Your task to perform on an android device: Search for Mexican restaurants on Maps Image 0: 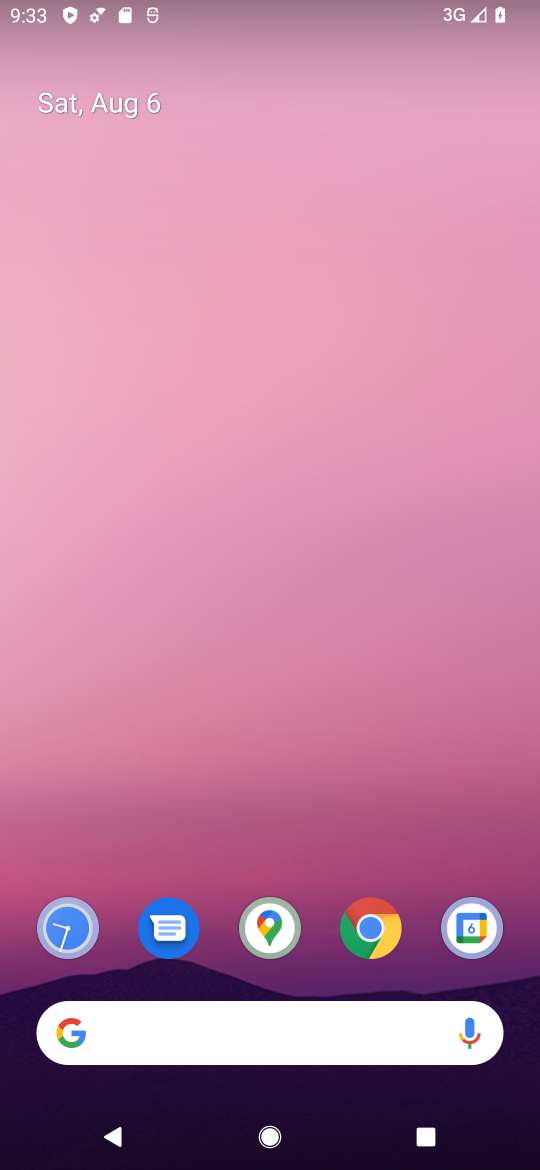
Step 0: click (276, 923)
Your task to perform on an android device: Search for Mexican restaurants on Maps Image 1: 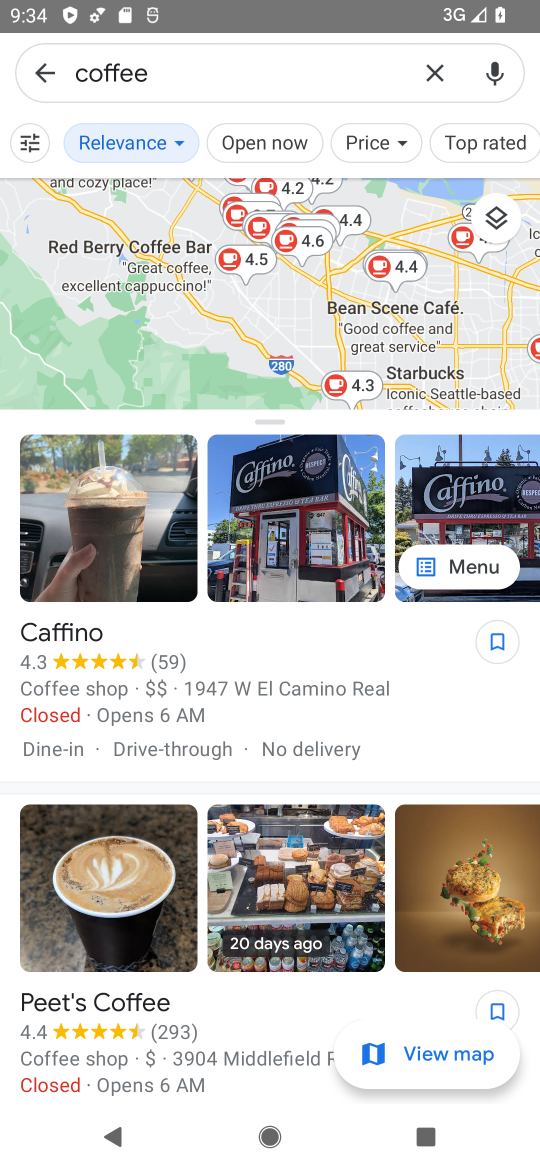
Step 1: click (432, 65)
Your task to perform on an android device: Search for Mexican restaurants on Maps Image 2: 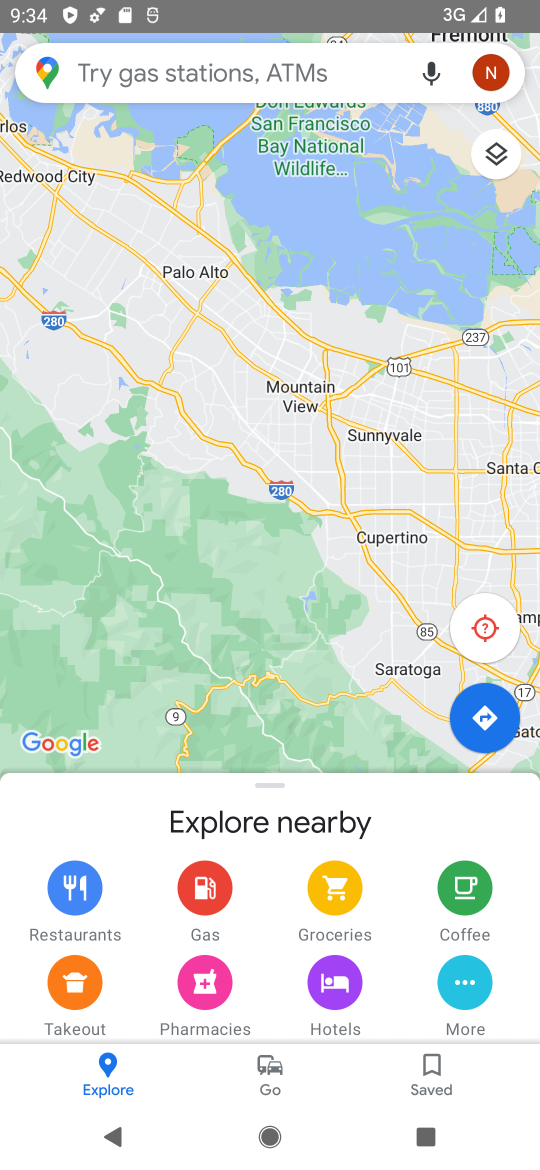
Step 2: click (223, 65)
Your task to perform on an android device: Search for Mexican restaurants on Maps Image 3: 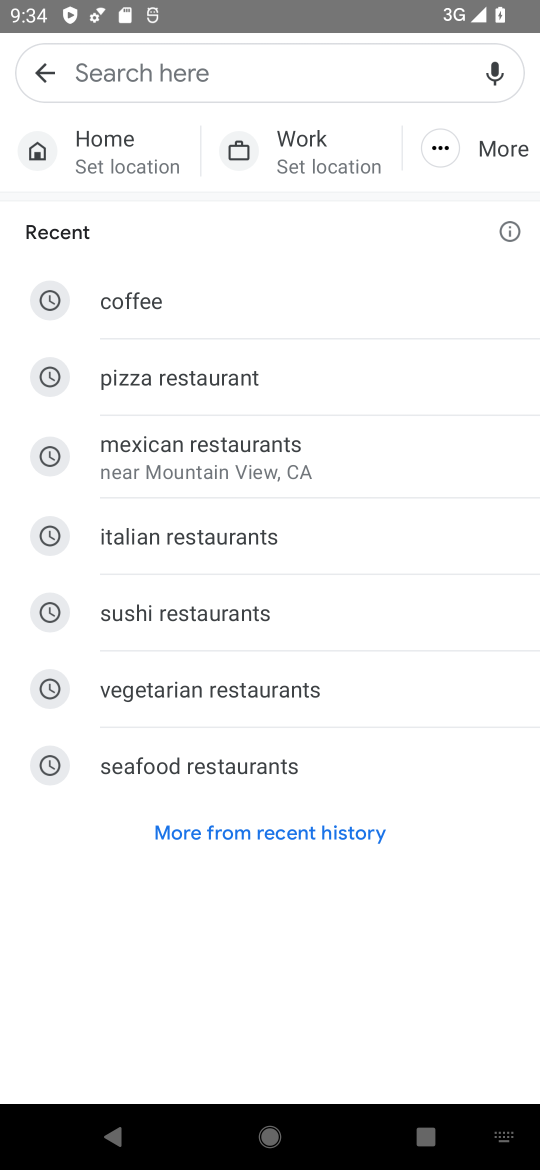
Step 3: click (198, 444)
Your task to perform on an android device: Search for Mexican restaurants on Maps Image 4: 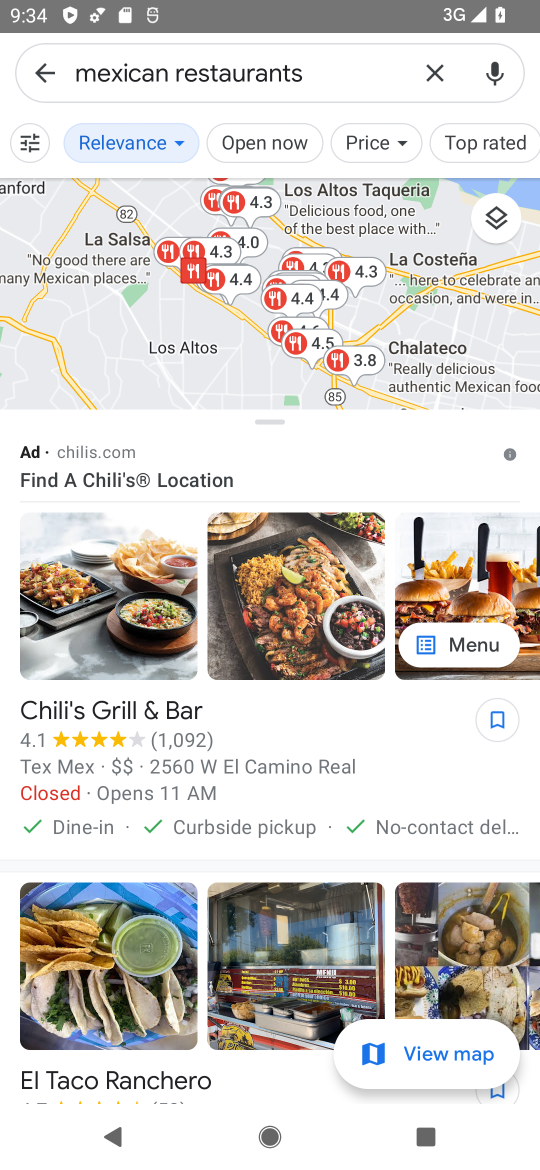
Step 4: task complete